Your task to perform on an android device: What's on my calendar today? Image 0: 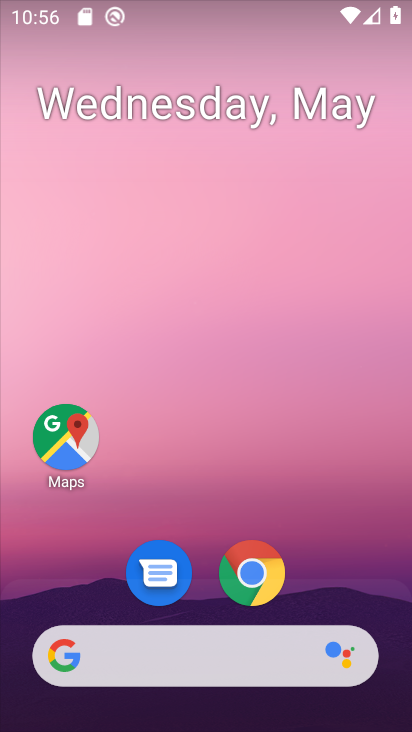
Step 0: drag from (378, 555) to (383, 148)
Your task to perform on an android device: What's on my calendar today? Image 1: 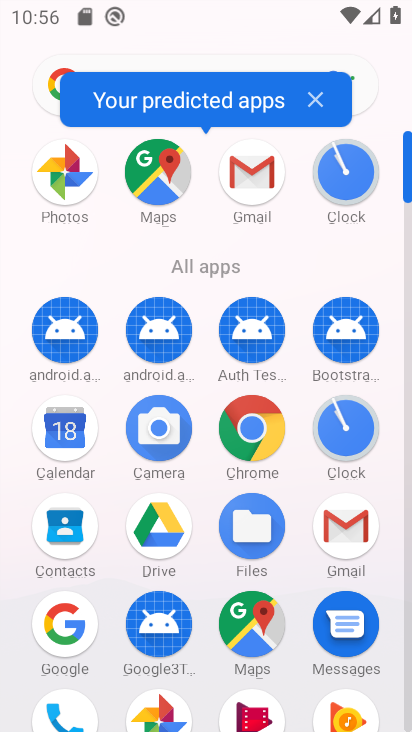
Step 1: click (77, 441)
Your task to perform on an android device: What's on my calendar today? Image 2: 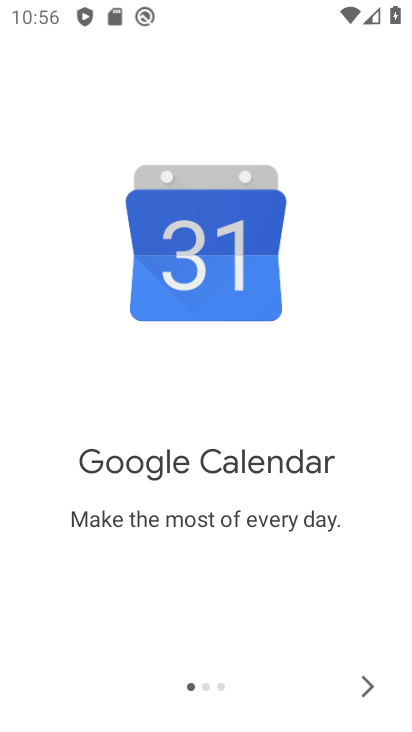
Step 2: click (360, 700)
Your task to perform on an android device: What's on my calendar today? Image 3: 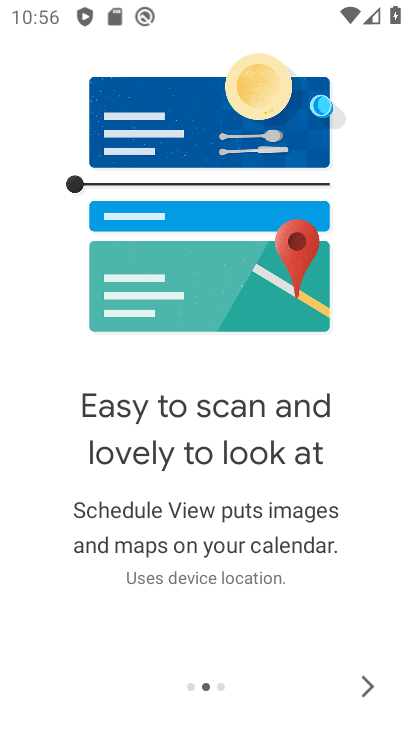
Step 3: click (374, 694)
Your task to perform on an android device: What's on my calendar today? Image 4: 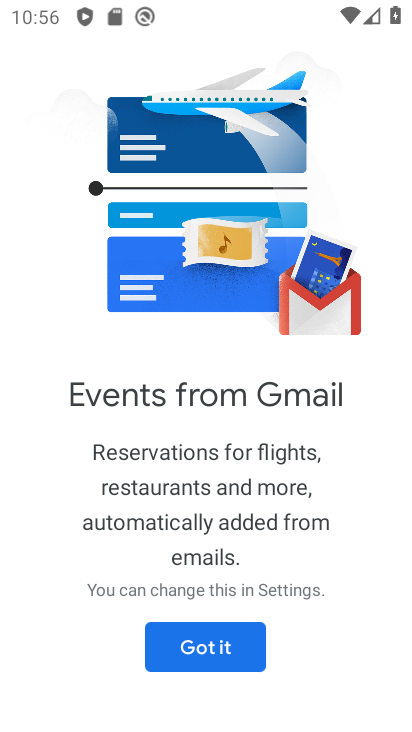
Step 4: click (236, 650)
Your task to perform on an android device: What's on my calendar today? Image 5: 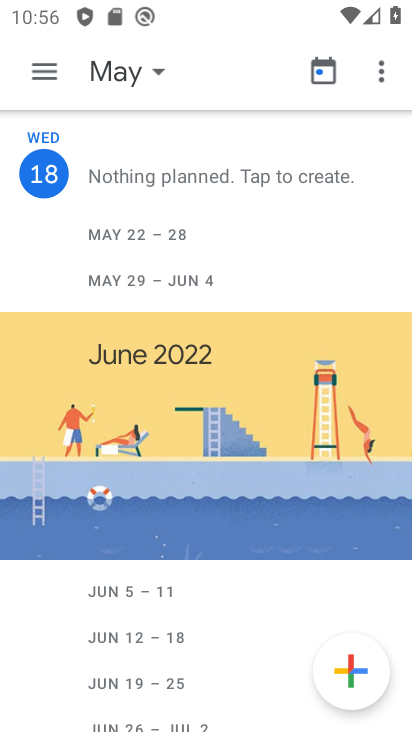
Step 5: click (155, 79)
Your task to perform on an android device: What's on my calendar today? Image 6: 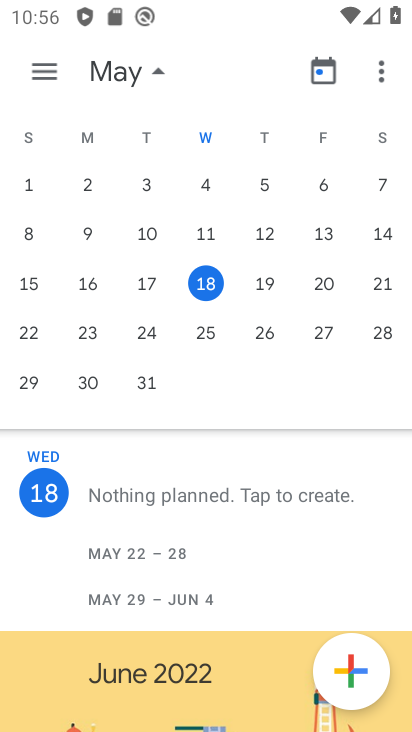
Step 6: click (263, 278)
Your task to perform on an android device: What's on my calendar today? Image 7: 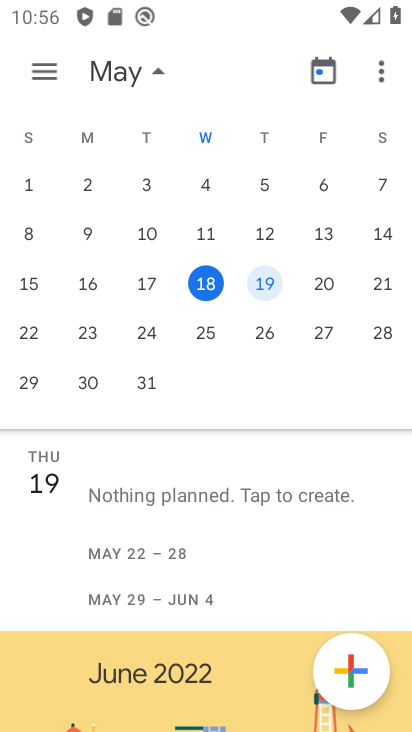
Step 7: task complete